Your task to perform on an android device: Open the phone app and click the voicemail tab. Image 0: 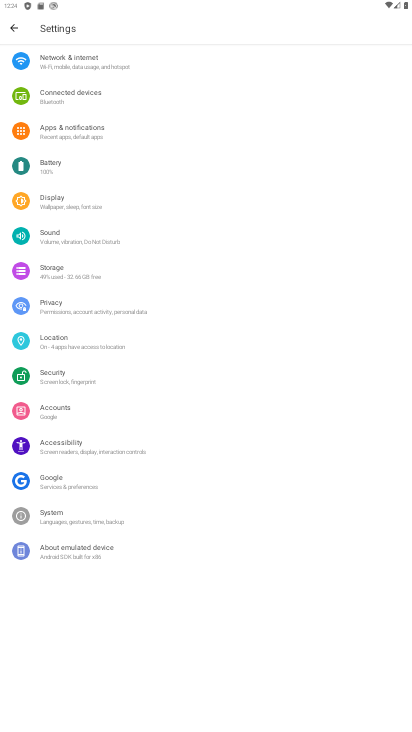
Step 0: press home button
Your task to perform on an android device: Open the phone app and click the voicemail tab. Image 1: 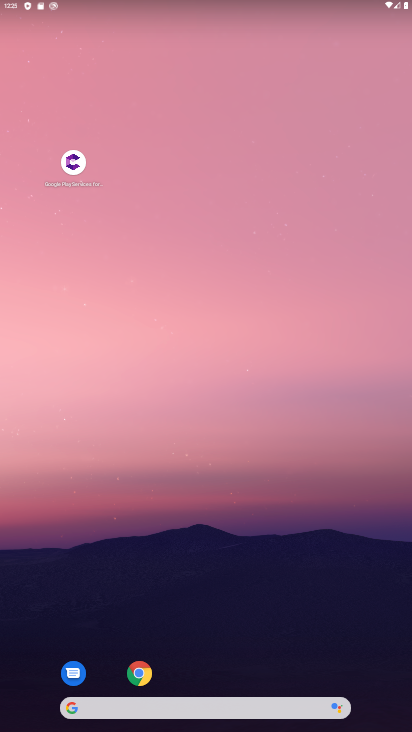
Step 1: drag from (199, 653) to (177, 97)
Your task to perform on an android device: Open the phone app and click the voicemail tab. Image 2: 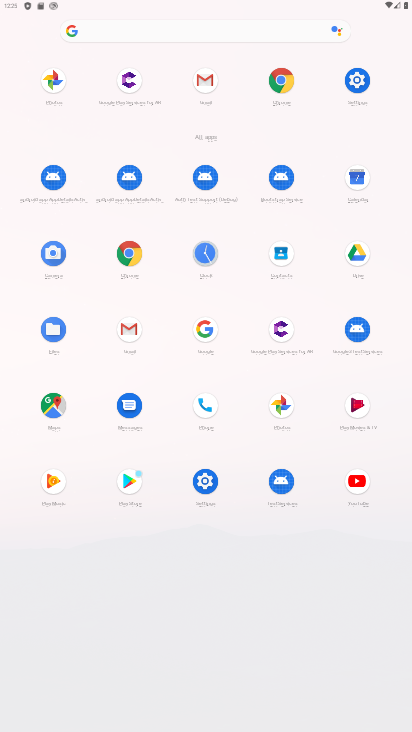
Step 2: click (215, 416)
Your task to perform on an android device: Open the phone app and click the voicemail tab. Image 3: 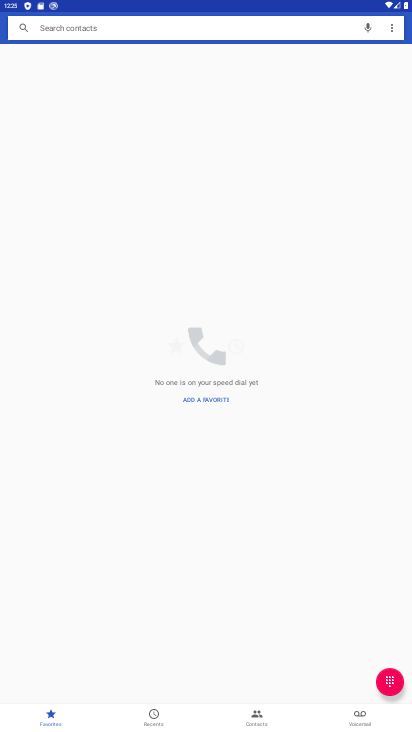
Step 3: click (361, 726)
Your task to perform on an android device: Open the phone app and click the voicemail tab. Image 4: 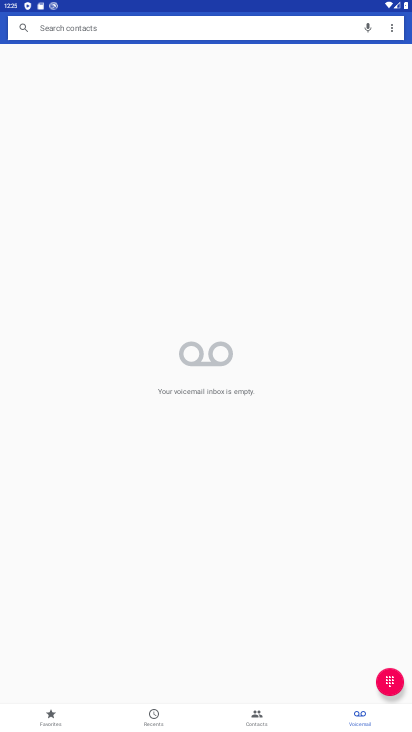
Step 4: task complete